Your task to perform on an android device: turn on airplane mode Image 0: 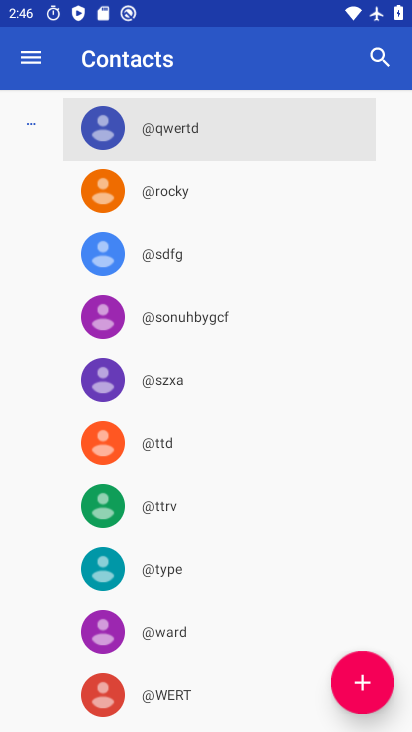
Step 0: press back button
Your task to perform on an android device: turn on airplane mode Image 1: 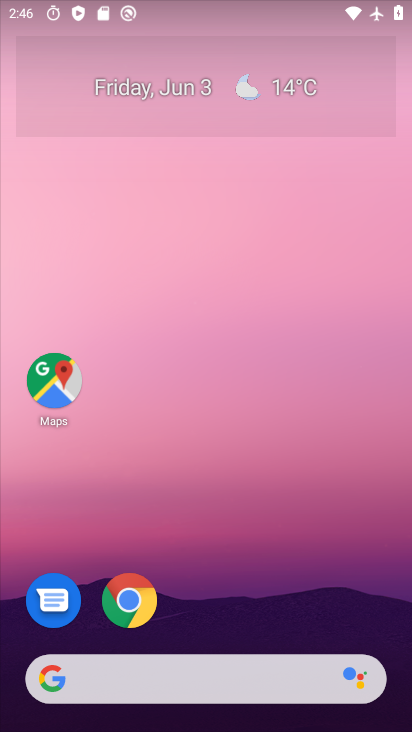
Step 1: drag from (271, 467) to (254, 16)
Your task to perform on an android device: turn on airplane mode Image 2: 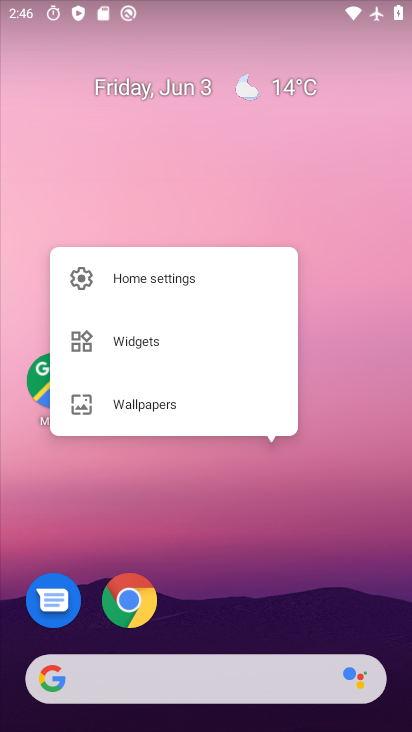
Step 2: press back button
Your task to perform on an android device: turn on airplane mode Image 3: 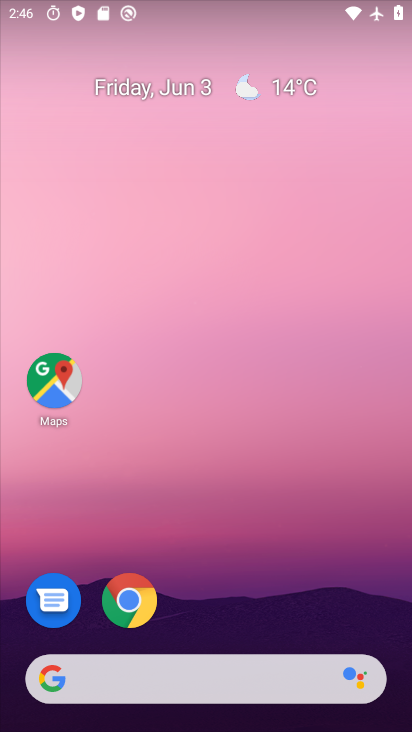
Step 3: drag from (223, 113) to (213, 33)
Your task to perform on an android device: turn on airplane mode Image 4: 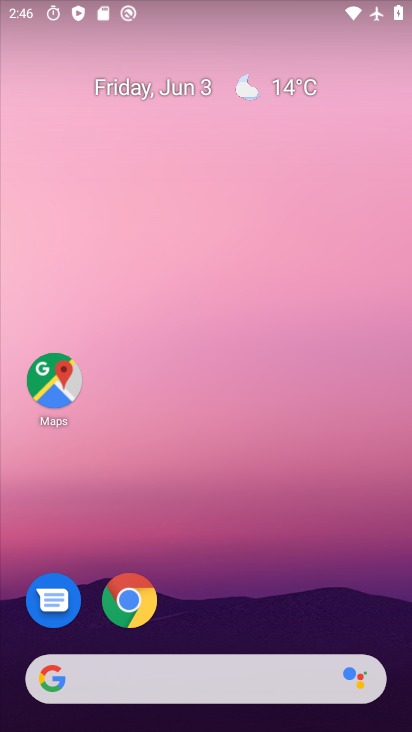
Step 4: drag from (309, 588) to (210, 20)
Your task to perform on an android device: turn on airplane mode Image 5: 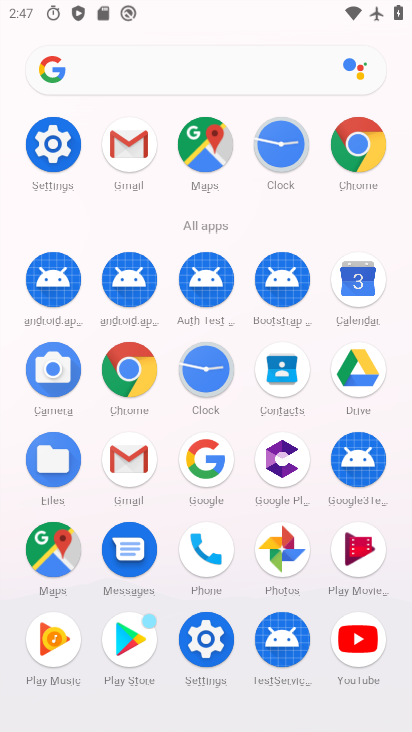
Step 5: click (206, 638)
Your task to perform on an android device: turn on airplane mode Image 6: 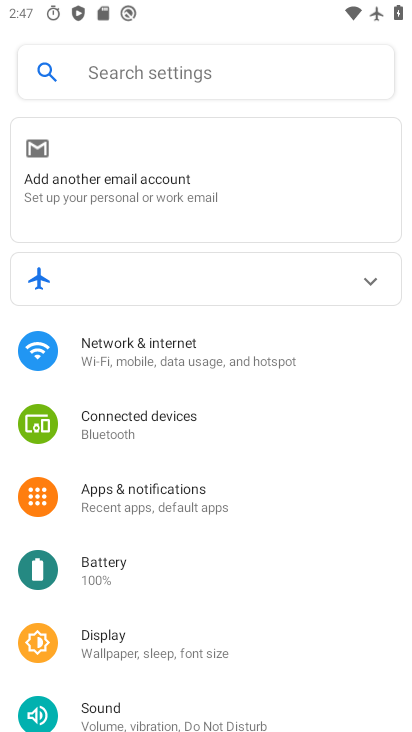
Step 6: click (185, 354)
Your task to perform on an android device: turn on airplane mode Image 7: 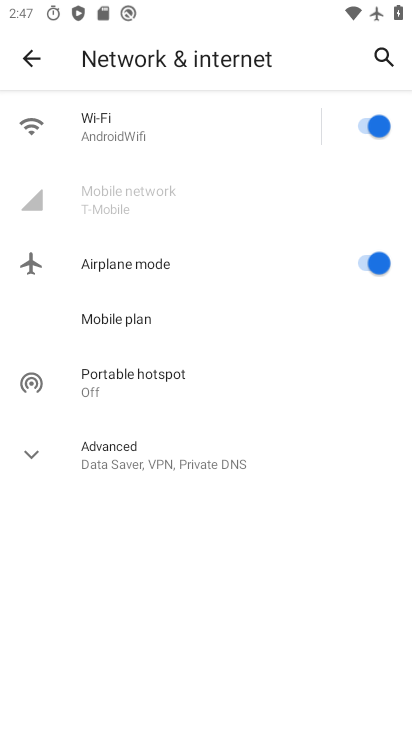
Step 7: click (41, 449)
Your task to perform on an android device: turn on airplane mode Image 8: 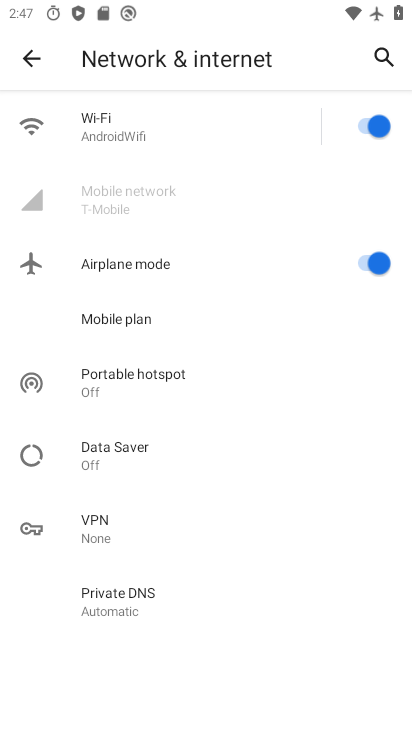
Step 8: task complete